Your task to perform on an android device: toggle sleep mode Image 0: 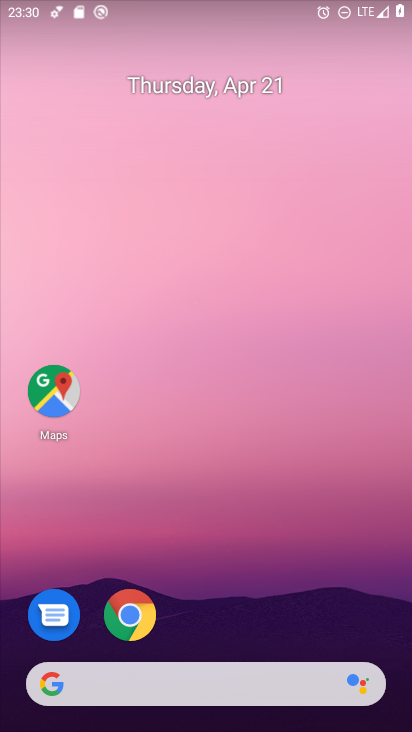
Step 0: drag from (206, 641) to (241, 113)
Your task to perform on an android device: toggle sleep mode Image 1: 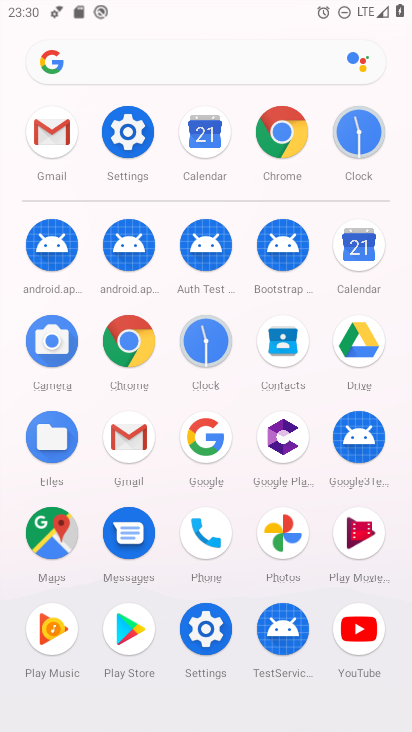
Step 1: click (203, 623)
Your task to perform on an android device: toggle sleep mode Image 2: 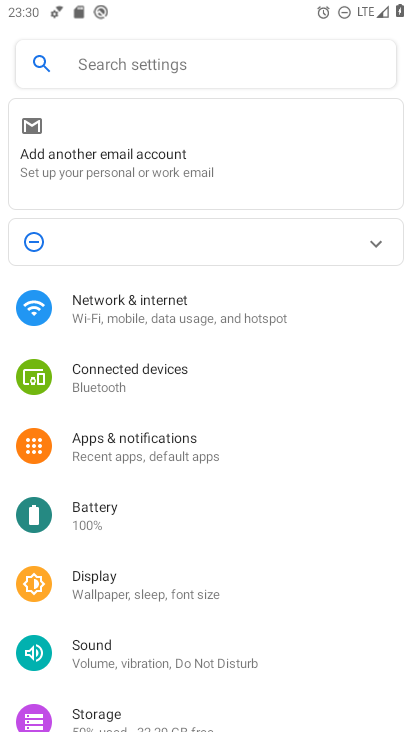
Step 2: click (129, 580)
Your task to perform on an android device: toggle sleep mode Image 3: 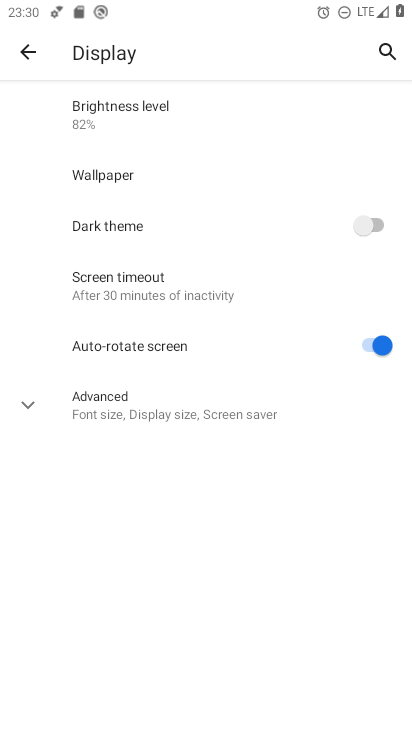
Step 3: click (26, 396)
Your task to perform on an android device: toggle sleep mode Image 4: 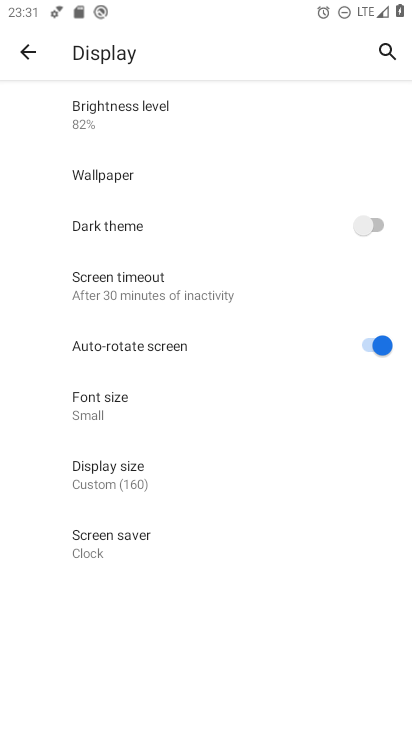
Step 4: task complete